Your task to perform on an android device: Open Chrome and go to settings Image 0: 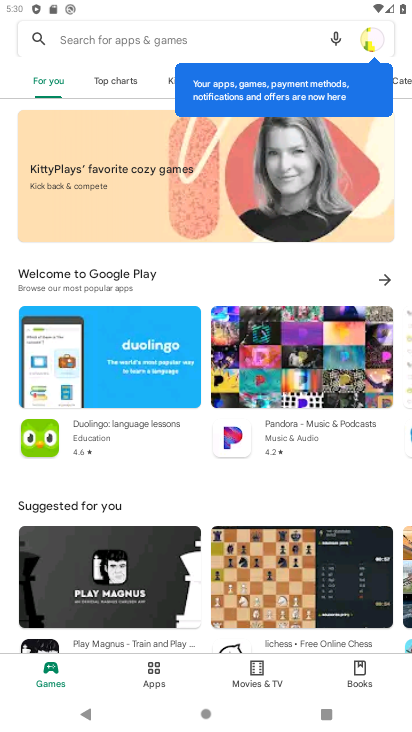
Step 0: press home button
Your task to perform on an android device: Open Chrome and go to settings Image 1: 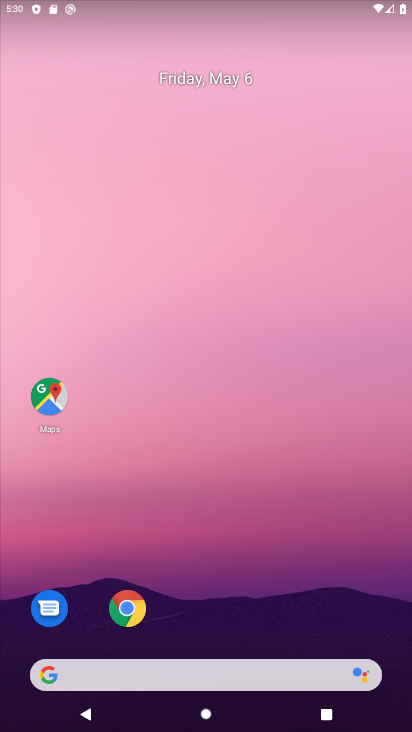
Step 1: click (122, 607)
Your task to perform on an android device: Open Chrome and go to settings Image 2: 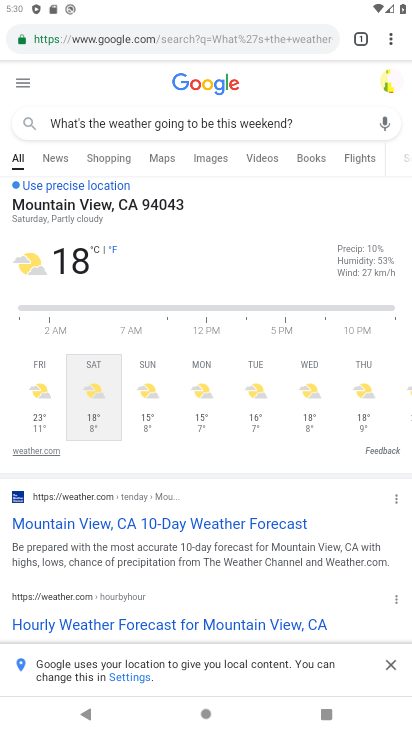
Step 2: task complete